Your task to perform on an android device: See recent photos Image 0: 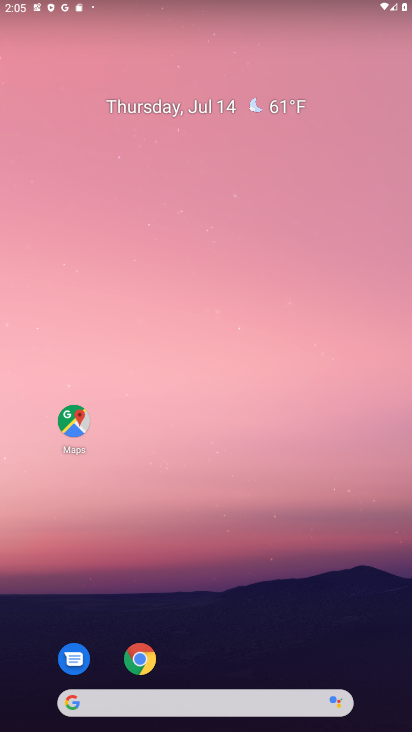
Step 0: drag from (213, 659) to (152, 159)
Your task to perform on an android device: See recent photos Image 1: 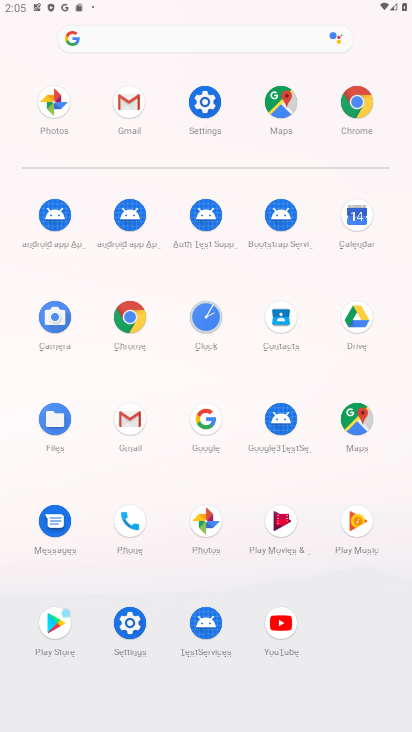
Step 1: click (213, 510)
Your task to perform on an android device: See recent photos Image 2: 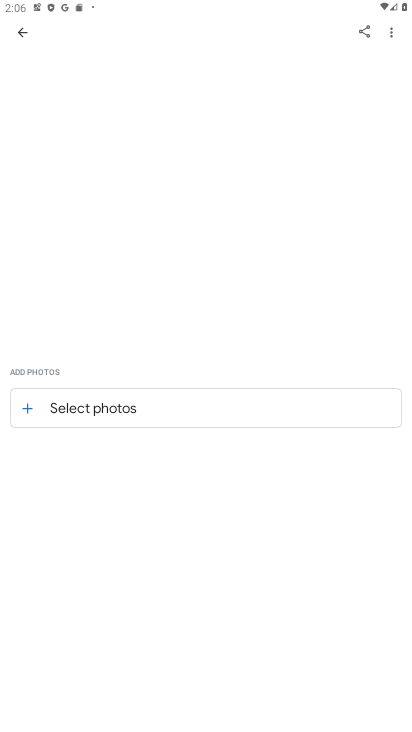
Step 2: task complete